Your task to perform on an android device: change the clock display to analog Image 0: 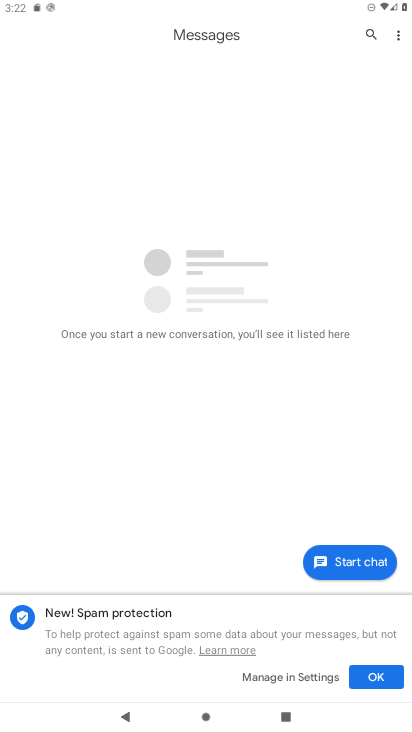
Step 0: press home button
Your task to perform on an android device: change the clock display to analog Image 1: 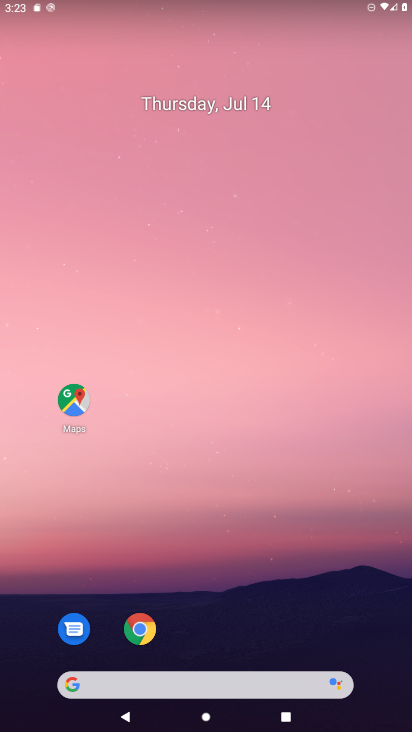
Step 1: drag from (205, 626) to (179, 24)
Your task to perform on an android device: change the clock display to analog Image 2: 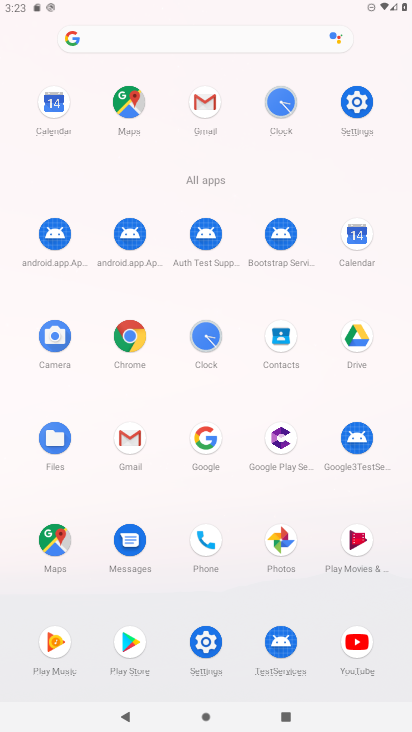
Step 2: click (208, 329)
Your task to perform on an android device: change the clock display to analog Image 3: 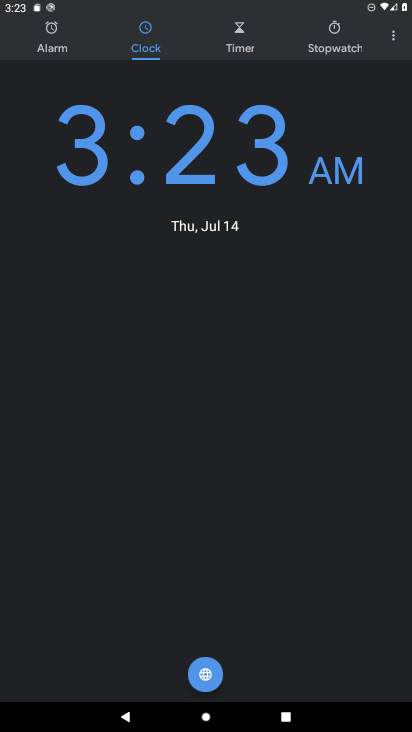
Step 3: click (390, 30)
Your task to perform on an android device: change the clock display to analog Image 4: 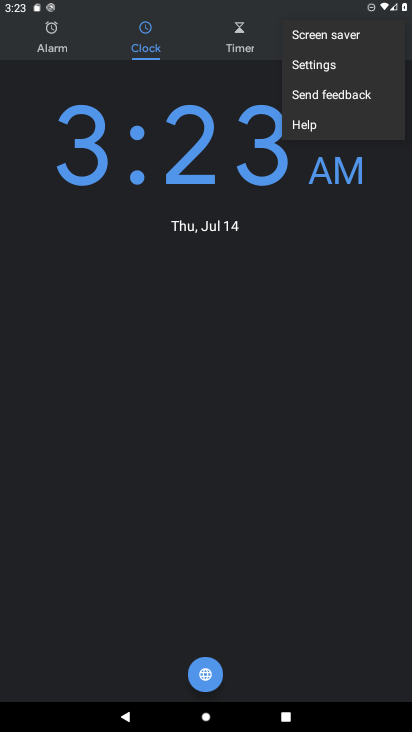
Step 4: click (321, 69)
Your task to perform on an android device: change the clock display to analog Image 5: 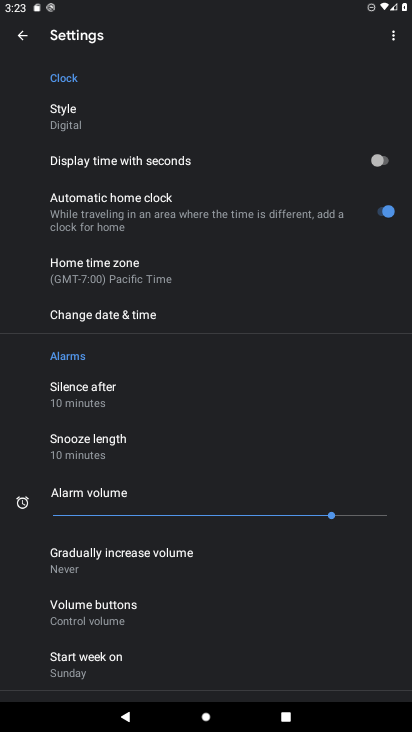
Step 5: click (92, 114)
Your task to perform on an android device: change the clock display to analog Image 6: 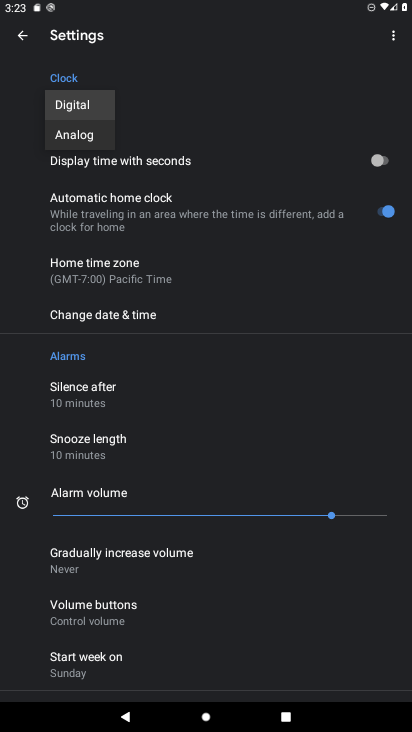
Step 6: click (86, 134)
Your task to perform on an android device: change the clock display to analog Image 7: 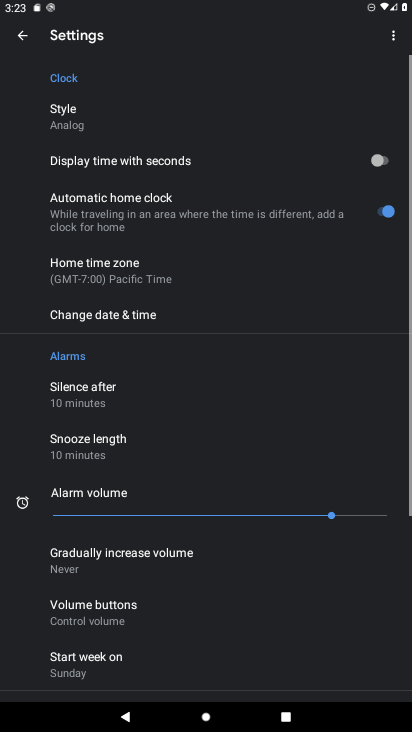
Step 7: task complete